Your task to perform on an android device: turn off priority inbox in the gmail app Image 0: 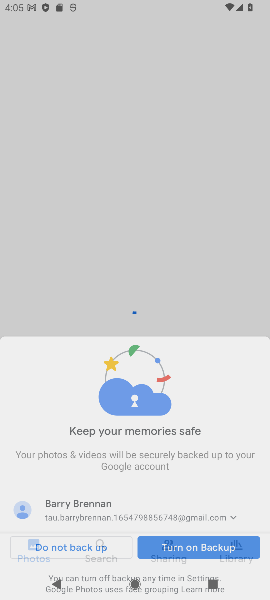
Step 0: press home button
Your task to perform on an android device: turn off priority inbox in the gmail app Image 1: 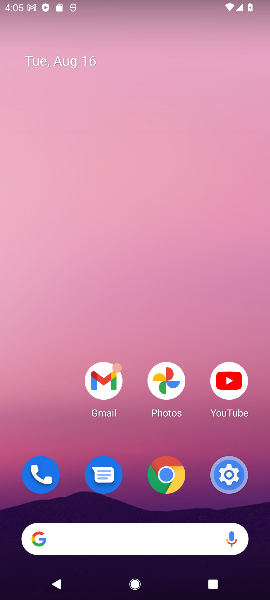
Step 1: drag from (263, 468) to (127, 16)
Your task to perform on an android device: turn off priority inbox in the gmail app Image 2: 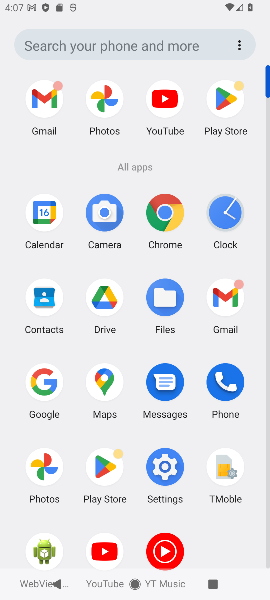
Step 2: click (211, 304)
Your task to perform on an android device: turn off priority inbox in the gmail app Image 3: 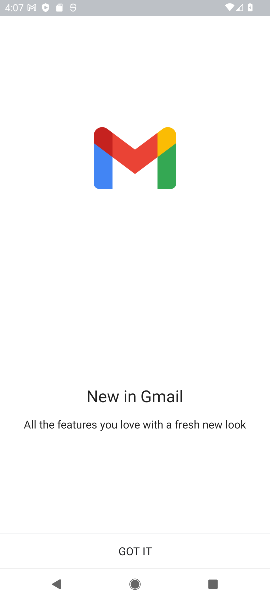
Step 3: click (152, 548)
Your task to perform on an android device: turn off priority inbox in the gmail app Image 4: 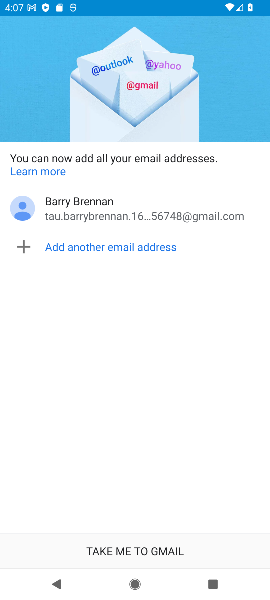
Step 4: click (147, 552)
Your task to perform on an android device: turn off priority inbox in the gmail app Image 5: 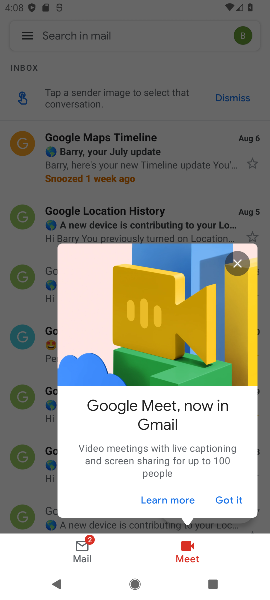
Step 5: click (237, 493)
Your task to perform on an android device: turn off priority inbox in the gmail app Image 6: 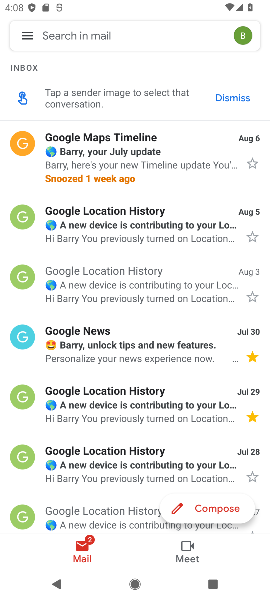
Step 6: click (19, 39)
Your task to perform on an android device: turn off priority inbox in the gmail app Image 7: 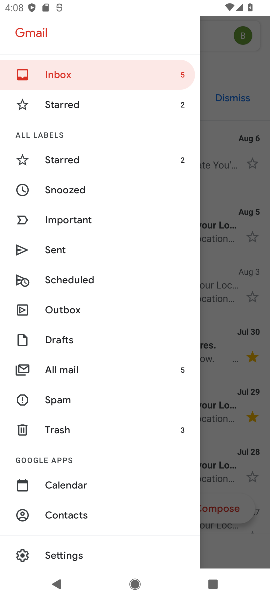
Step 7: click (60, 547)
Your task to perform on an android device: turn off priority inbox in the gmail app Image 8: 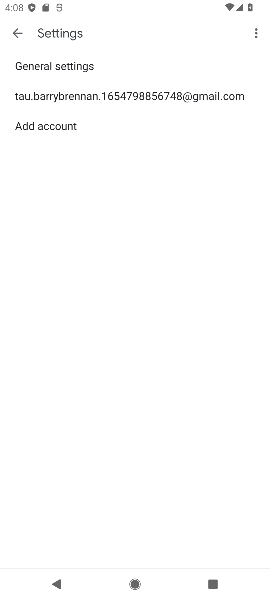
Step 8: click (151, 101)
Your task to perform on an android device: turn off priority inbox in the gmail app Image 9: 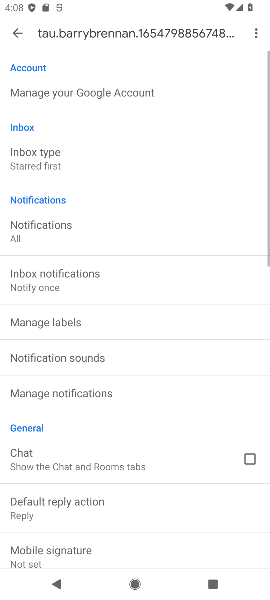
Step 9: click (64, 166)
Your task to perform on an android device: turn off priority inbox in the gmail app Image 10: 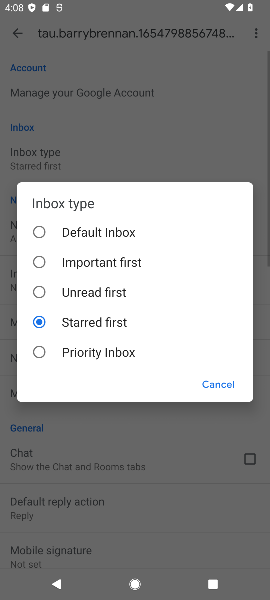
Step 10: click (101, 241)
Your task to perform on an android device: turn off priority inbox in the gmail app Image 11: 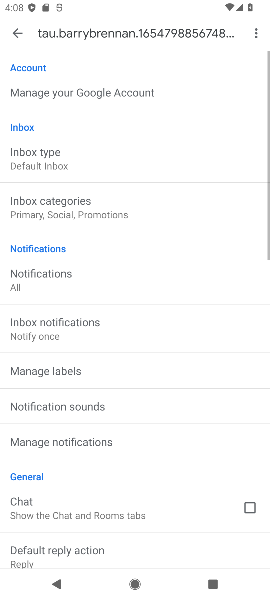
Step 11: task complete